Your task to perform on an android device: toggle javascript in the chrome app Image 0: 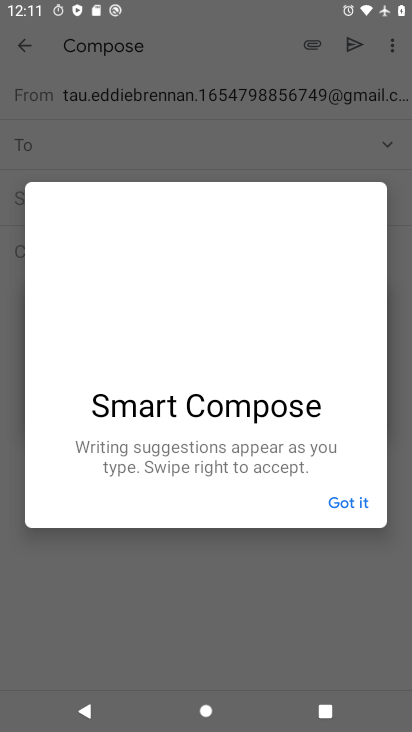
Step 0: press home button
Your task to perform on an android device: toggle javascript in the chrome app Image 1: 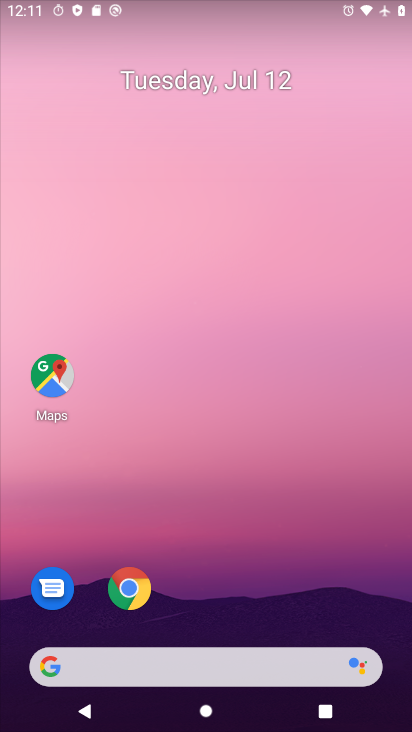
Step 1: click (121, 593)
Your task to perform on an android device: toggle javascript in the chrome app Image 2: 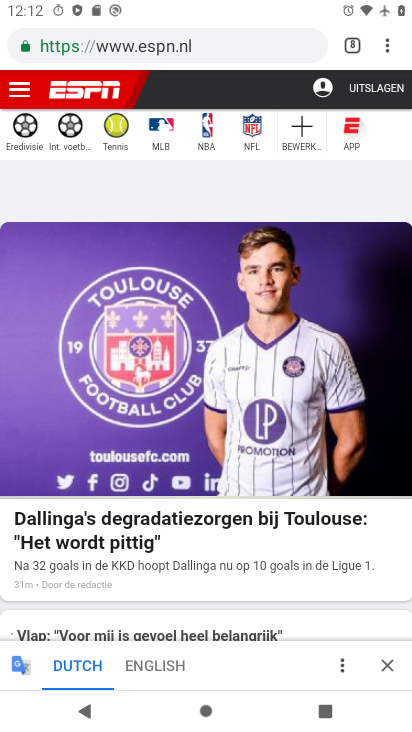
Step 2: drag from (384, 42) to (250, 562)
Your task to perform on an android device: toggle javascript in the chrome app Image 3: 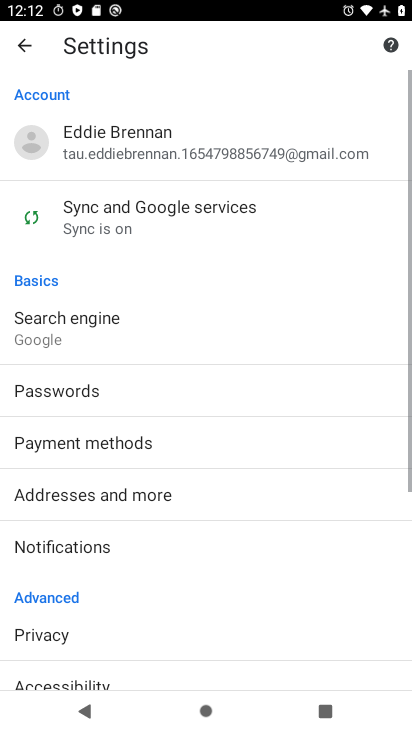
Step 3: drag from (197, 584) to (351, 129)
Your task to perform on an android device: toggle javascript in the chrome app Image 4: 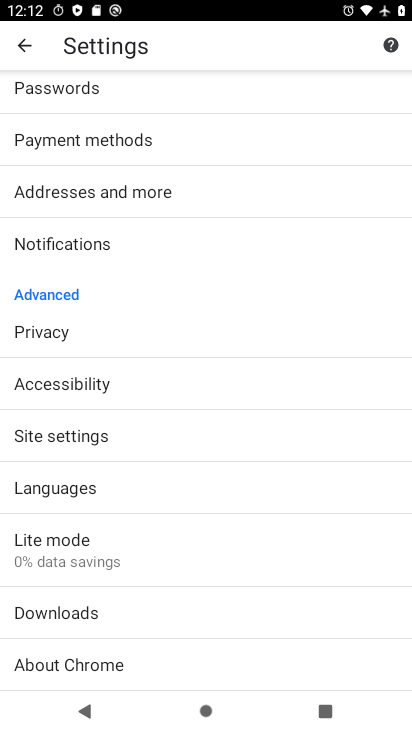
Step 4: click (107, 440)
Your task to perform on an android device: toggle javascript in the chrome app Image 5: 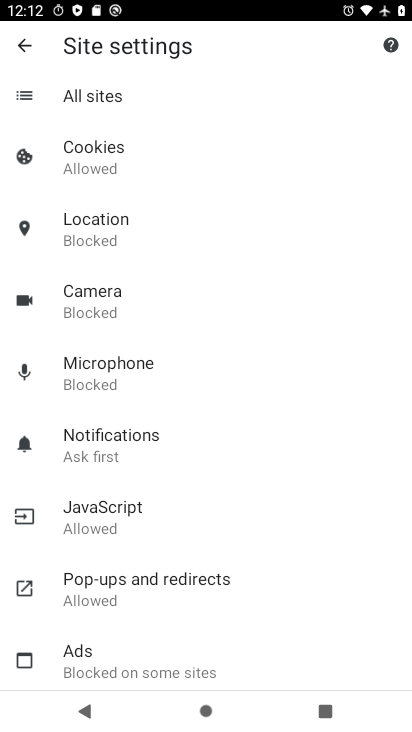
Step 5: click (105, 517)
Your task to perform on an android device: toggle javascript in the chrome app Image 6: 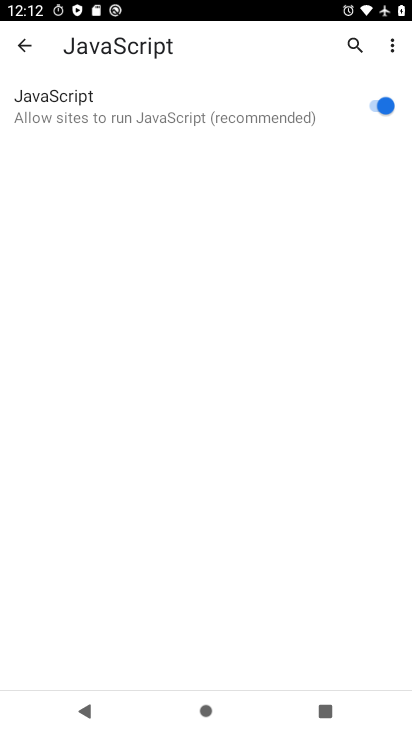
Step 6: click (374, 97)
Your task to perform on an android device: toggle javascript in the chrome app Image 7: 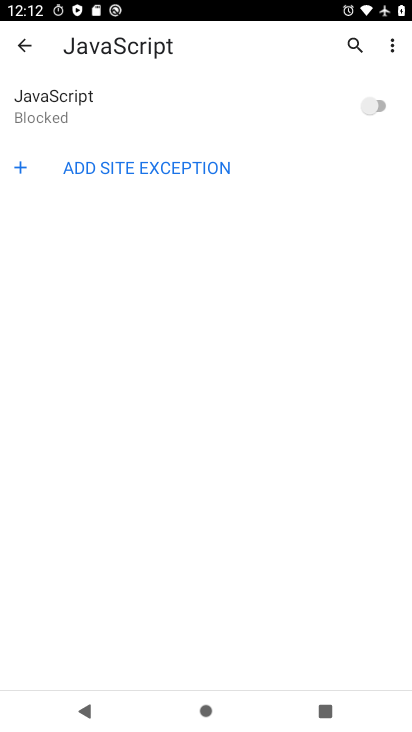
Step 7: task complete